Your task to perform on an android device: View the shopping cart on newegg.com. Search for "macbook pro 15 inch" on newegg.com, select the first entry, and add it to the cart. Image 0: 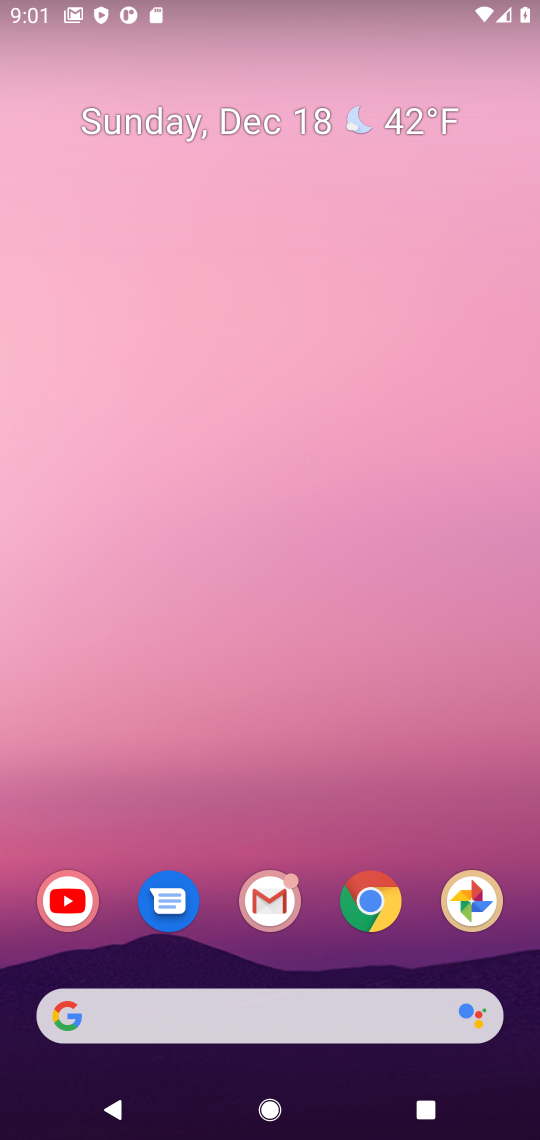
Step 0: click (392, 895)
Your task to perform on an android device: View the shopping cart on newegg.com. Search for "macbook pro 15 inch" on newegg.com, select the first entry, and add it to the cart. Image 1: 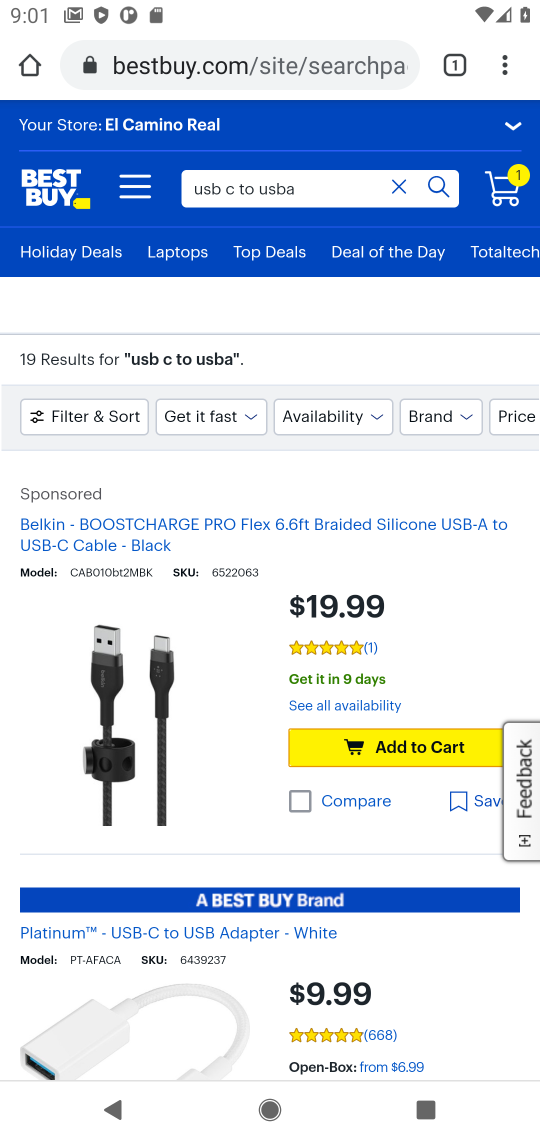
Step 1: task complete